Your task to perform on an android device: change the clock display to analog Image 0: 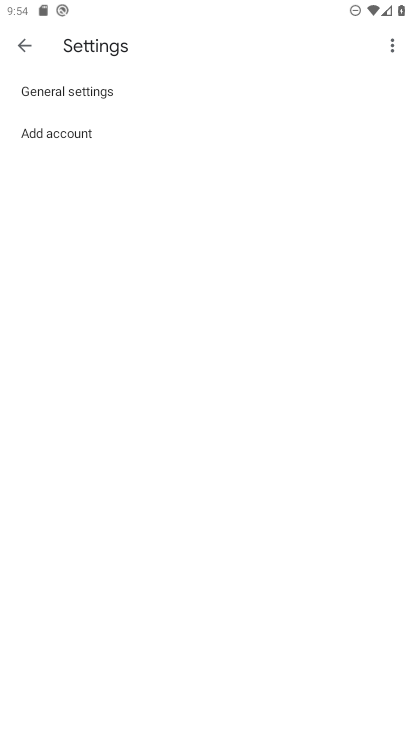
Step 0: press home button
Your task to perform on an android device: change the clock display to analog Image 1: 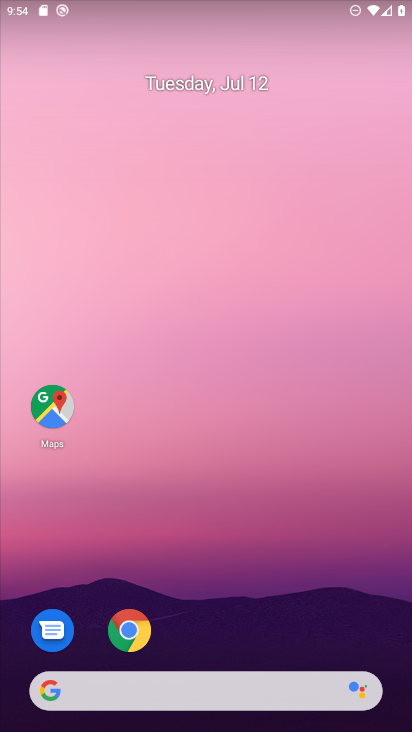
Step 1: drag from (243, 664) to (243, 201)
Your task to perform on an android device: change the clock display to analog Image 2: 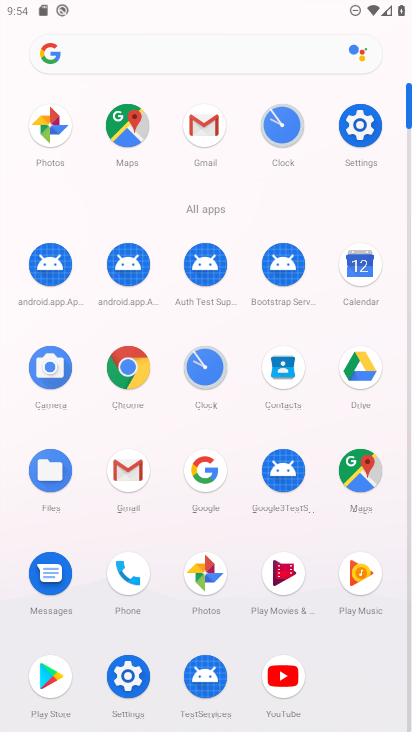
Step 2: click (198, 380)
Your task to perform on an android device: change the clock display to analog Image 3: 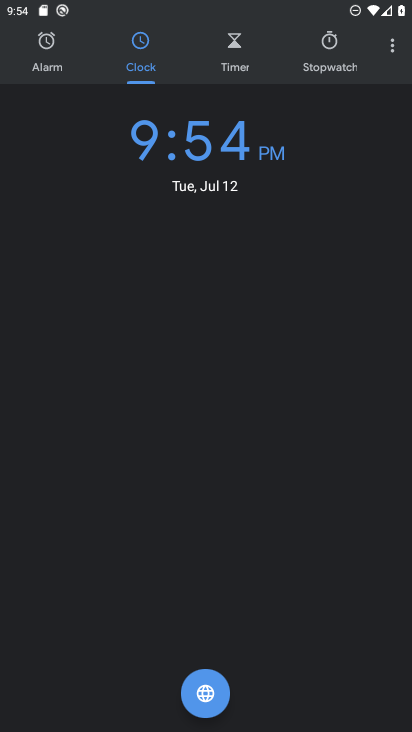
Step 3: click (393, 45)
Your task to perform on an android device: change the clock display to analog Image 4: 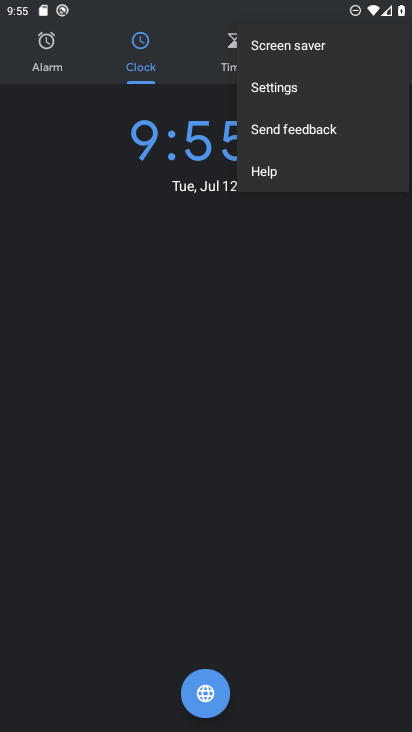
Step 4: click (286, 89)
Your task to perform on an android device: change the clock display to analog Image 5: 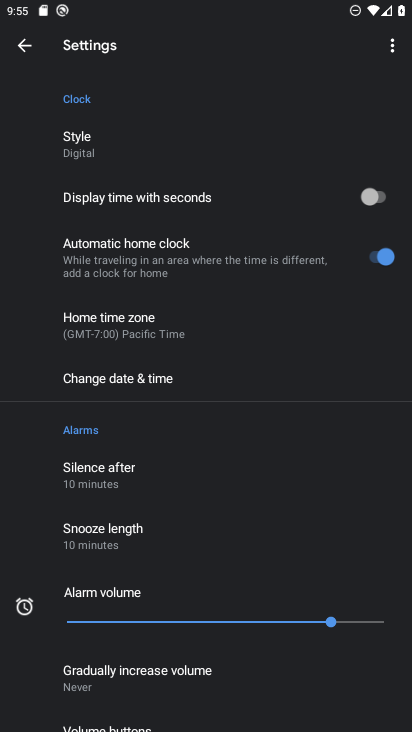
Step 5: click (92, 147)
Your task to perform on an android device: change the clock display to analog Image 6: 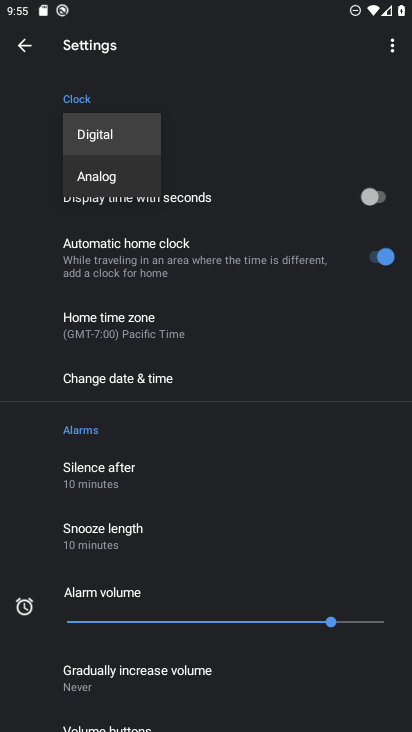
Step 6: click (107, 188)
Your task to perform on an android device: change the clock display to analog Image 7: 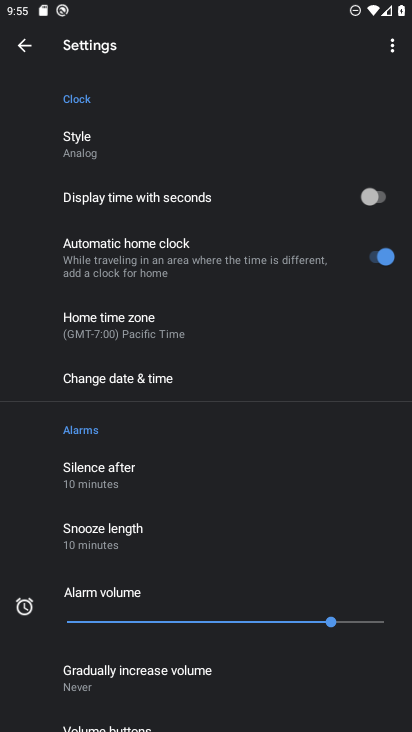
Step 7: task complete